Your task to perform on an android device: create a new album in the google photos Image 0: 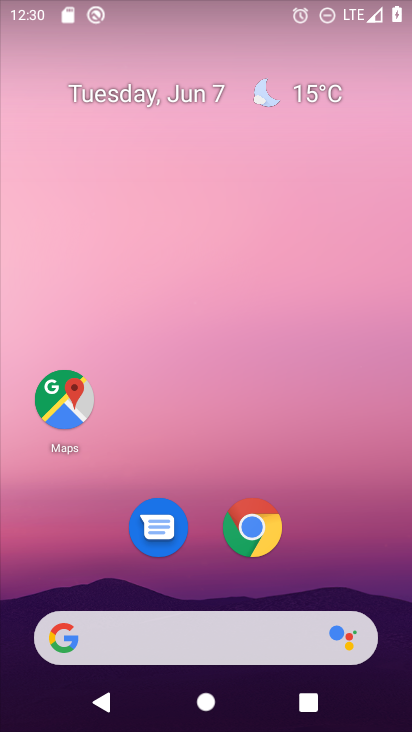
Step 0: drag from (361, 577) to (363, 168)
Your task to perform on an android device: create a new album in the google photos Image 1: 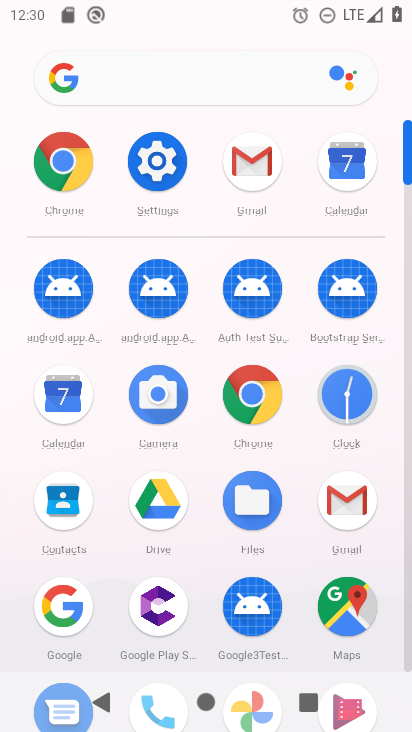
Step 1: drag from (299, 430) to (292, 183)
Your task to perform on an android device: create a new album in the google photos Image 2: 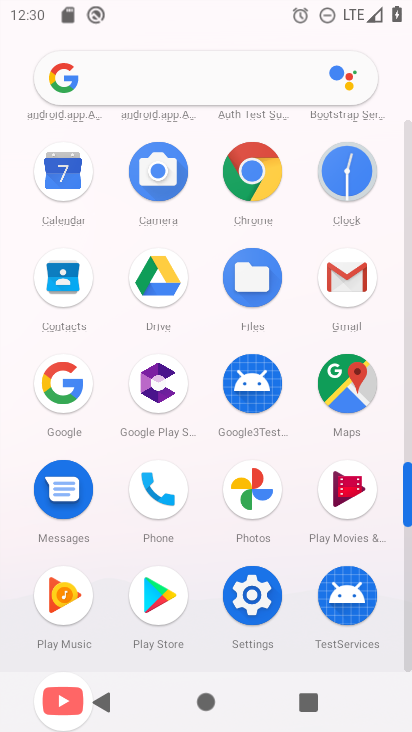
Step 2: click (274, 494)
Your task to perform on an android device: create a new album in the google photos Image 3: 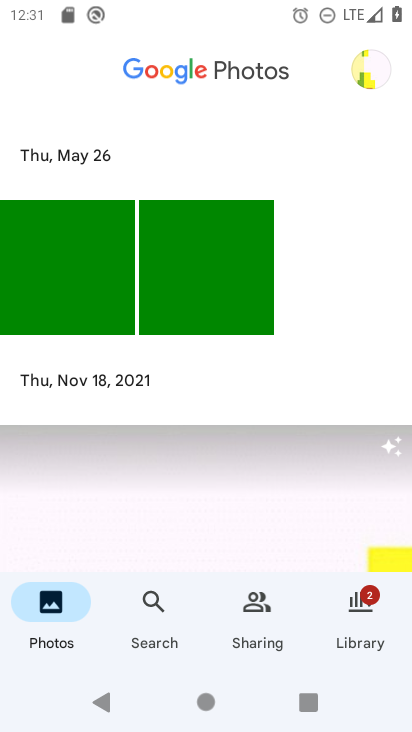
Step 3: click (356, 606)
Your task to perform on an android device: create a new album in the google photos Image 4: 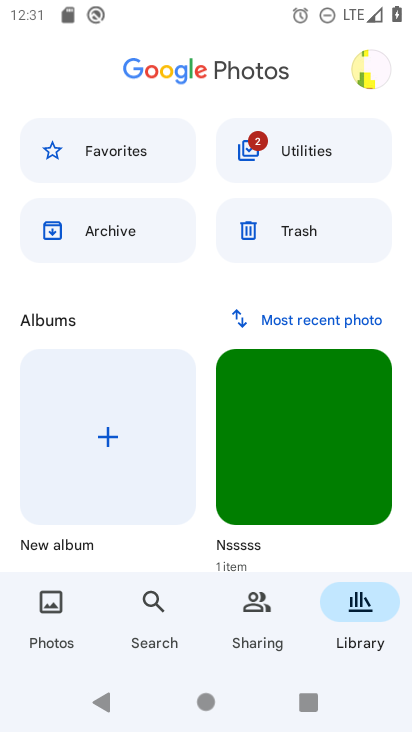
Step 4: click (109, 439)
Your task to perform on an android device: create a new album in the google photos Image 5: 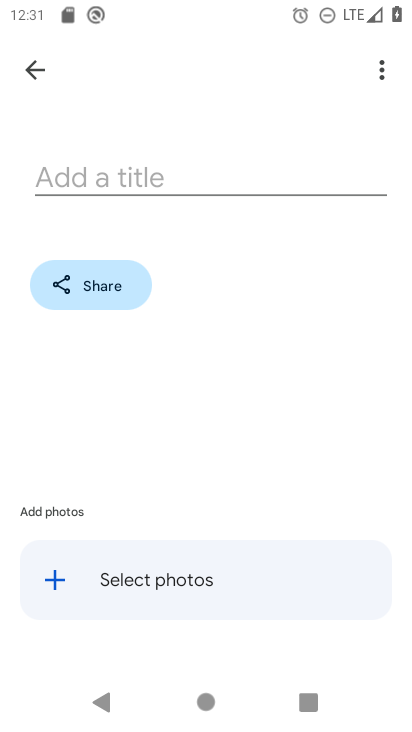
Step 5: click (150, 172)
Your task to perform on an android device: create a new album in the google photos Image 6: 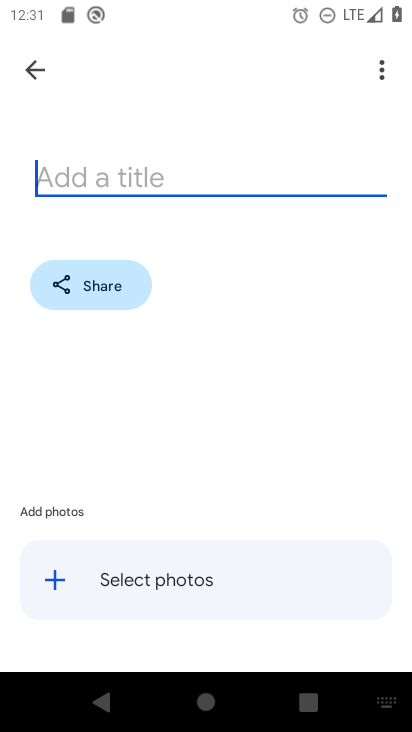
Step 6: type "fgav"
Your task to perform on an android device: create a new album in the google photos Image 7: 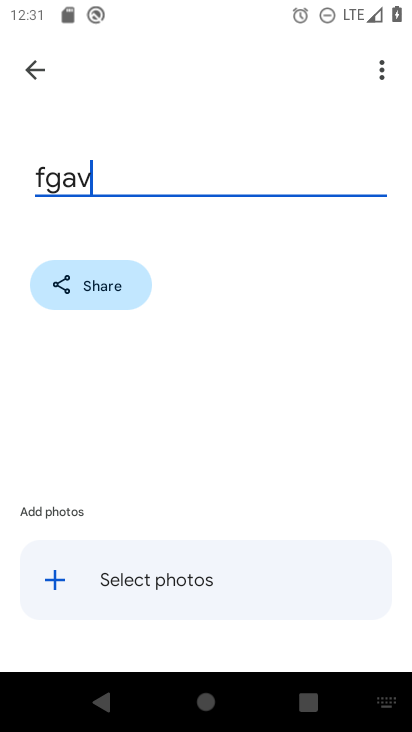
Step 7: click (73, 594)
Your task to perform on an android device: create a new album in the google photos Image 8: 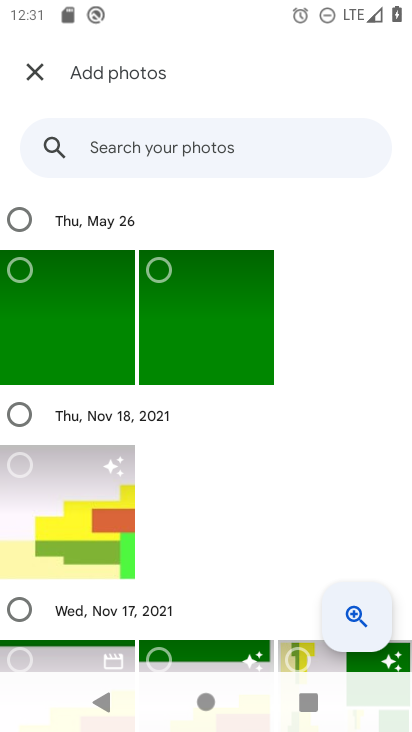
Step 8: click (29, 302)
Your task to perform on an android device: create a new album in the google photos Image 9: 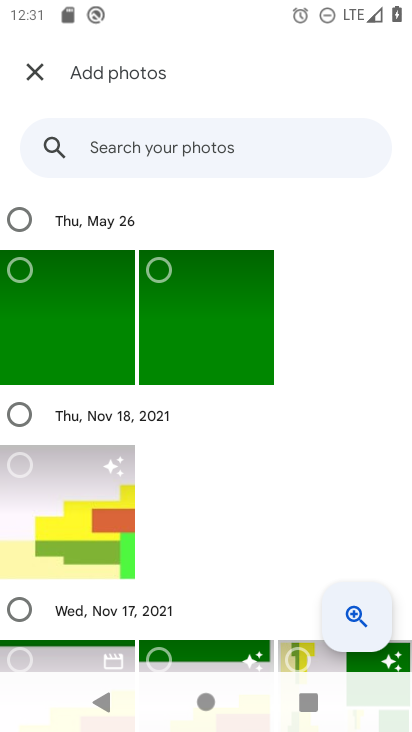
Step 9: click (209, 313)
Your task to perform on an android device: create a new album in the google photos Image 10: 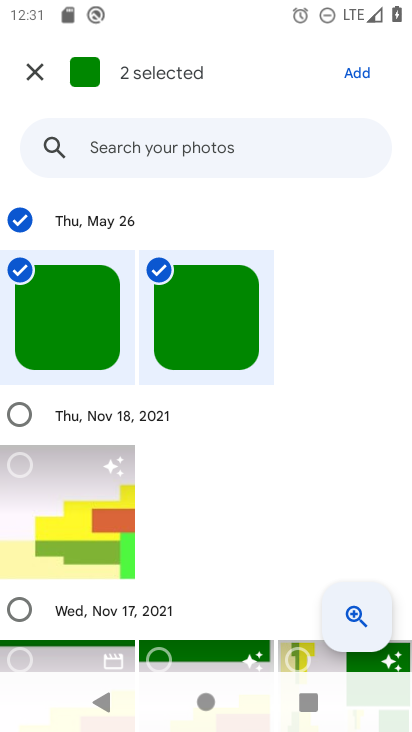
Step 10: click (359, 63)
Your task to perform on an android device: create a new album in the google photos Image 11: 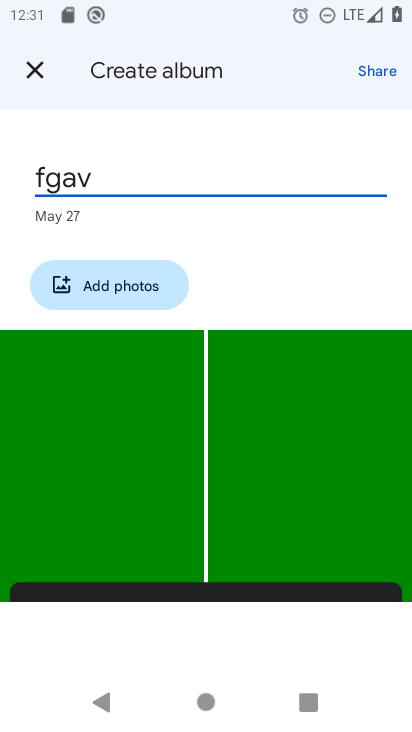
Step 11: task complete